Your task to perform on an android device: Clear the shopping cart on costco. Add usb-c to usb-b to the cart on costco Image 0: 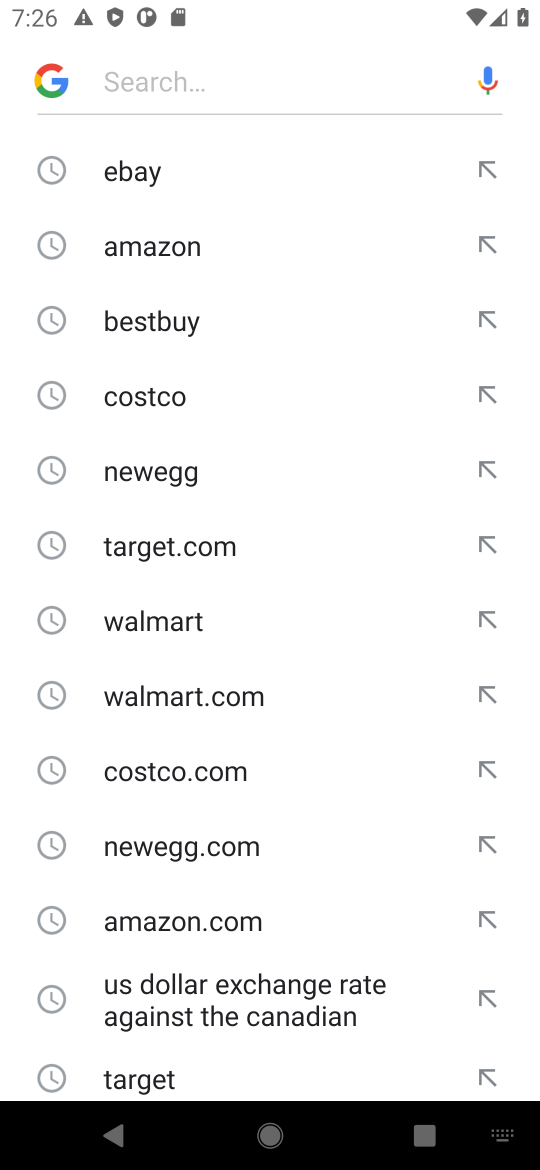
Step 0: click (159, 777)
Your task to perform on an android device: Clear the shopping cart on costco. Add usb-c to usb-b to the cart on costco Image 1: 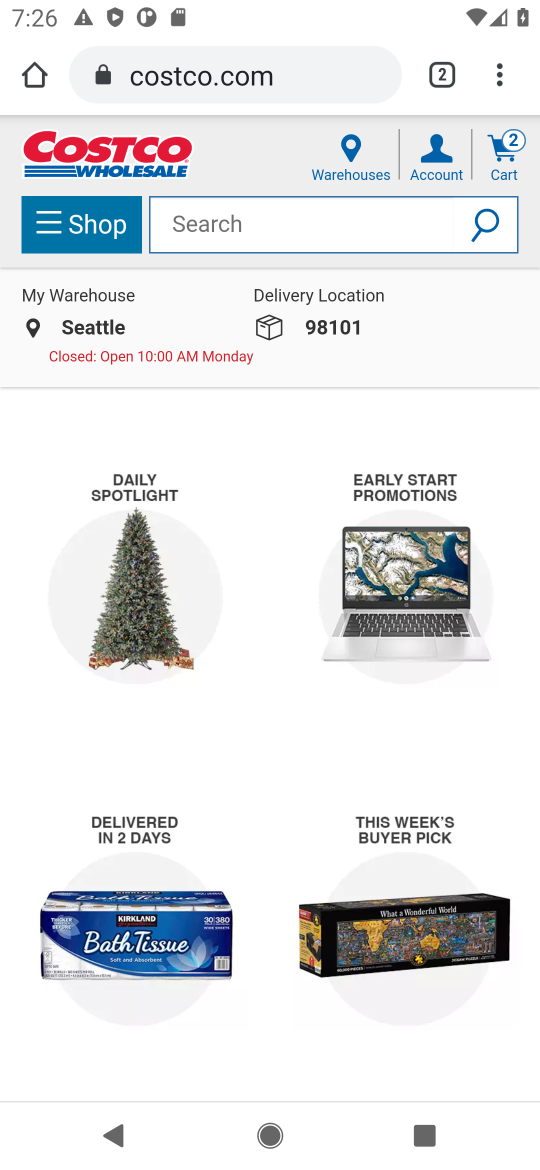
Step 1: click (494, 144)
Your task to perform on an android device: Clear the shopping cart on costco. Add usb-c to usb-b to the cart on costco Image 2: 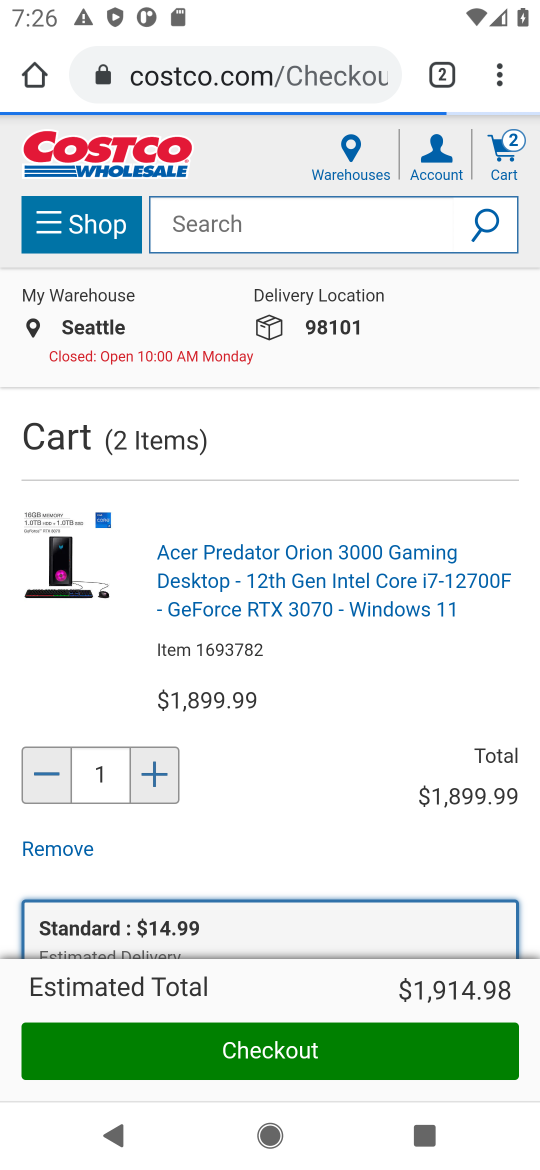
Step 2: drag from (331, 768) to (327, 488)
Your task to perform on an android device: Clear the shopping cart on costco. Add usb-c to usb-b to the cart on costco Image 3: 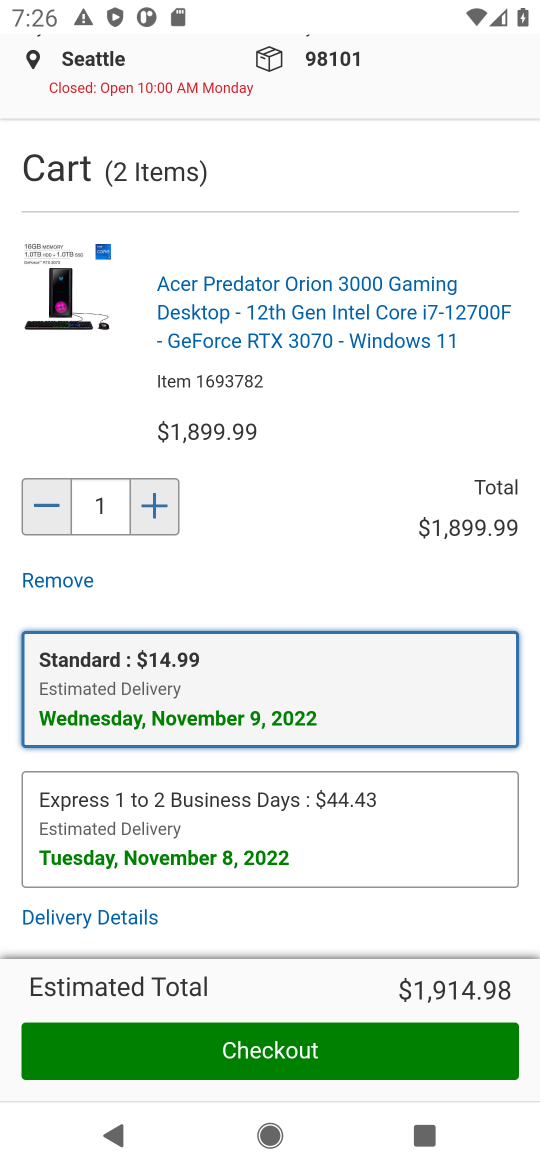
Step 3: click (33, 588)
Your task to perform on an android device: Clear the shopping cart on costco. Add usb-c to usb-b to the cart on costco Image 4: 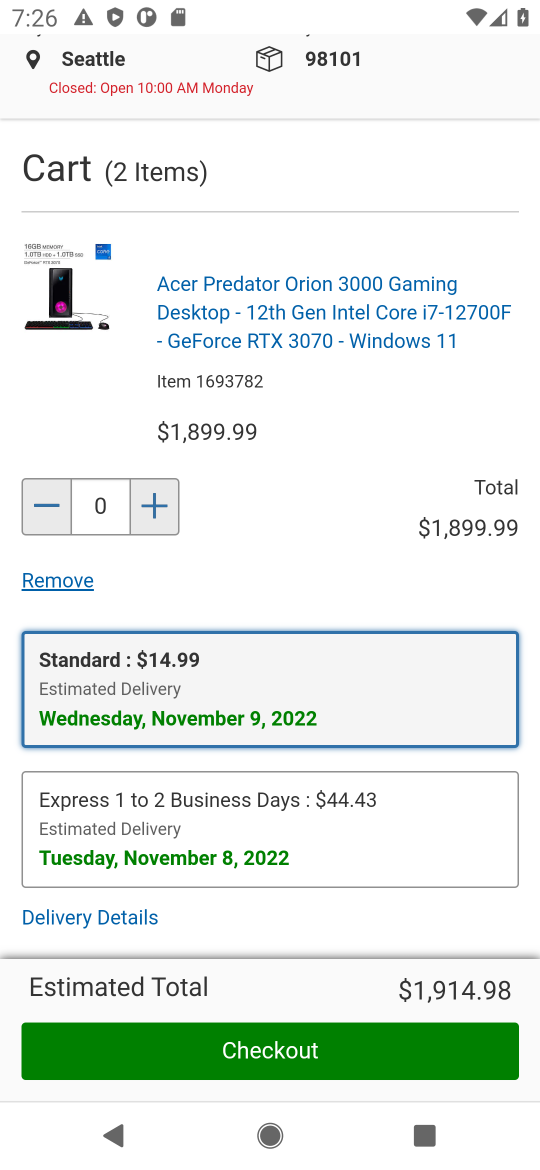
Step 4: click (50, 584)
Your task to perform on an android device: Clear the shopping cart on costco. Add usb-c to usb-b to the cart on costco Image 5: 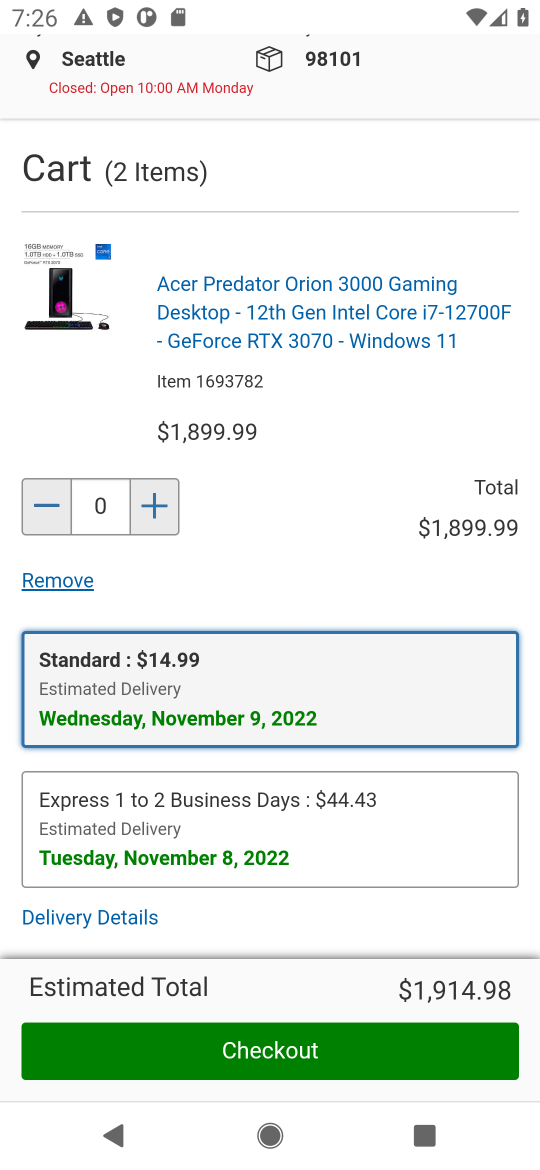
Step 5: drag from (332, 640) to (338, 390)
Your task to perform on an android device: Clear the shopping cart on costco. Add usb-c to usb-b to the cart on costco Image 6: 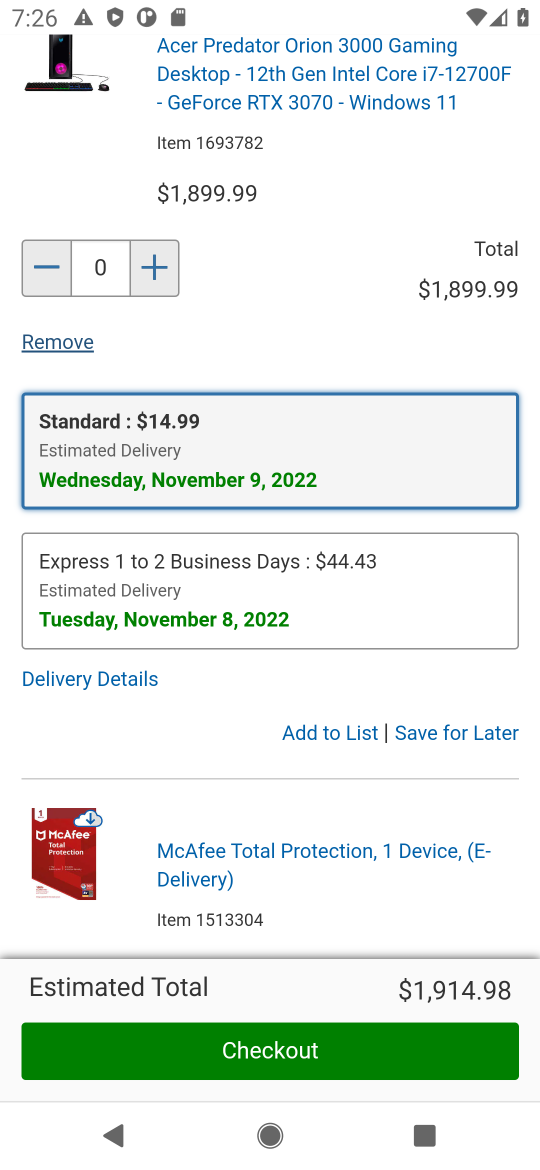
Step 6: drag from (271, 681) to (308, 351)
Your task to perform on an android device: Clear the shopping cart on costco. Add usb-c to usb-b to the cart on costco Image 7: 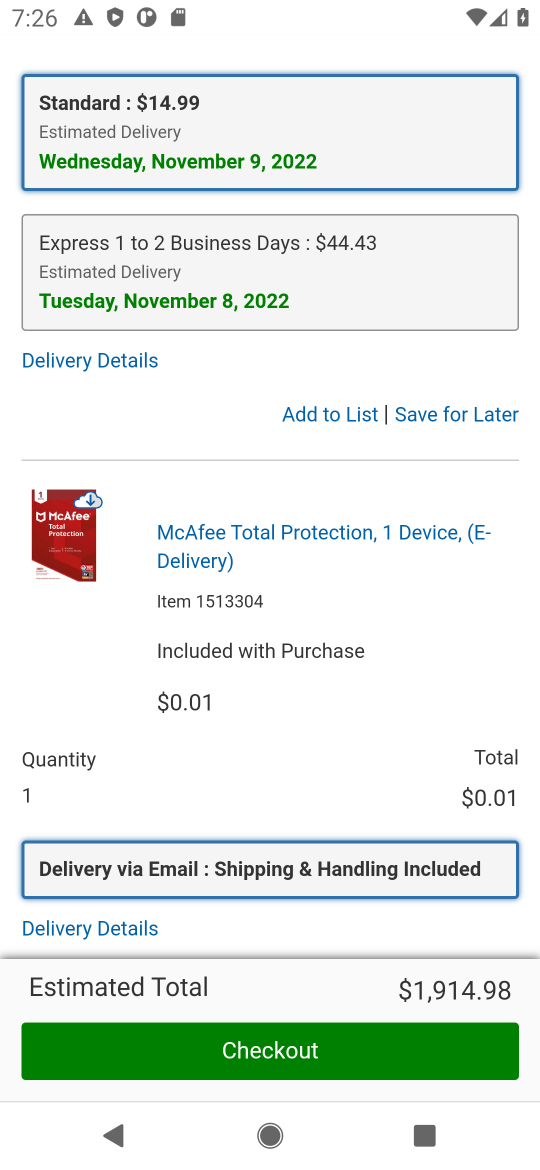
Step 7: drag from (217, 767) to (241, 532)
Your task to perform on an android device: Clear the shopping cart on costco. Add usb-c to usb-b to the cart on costco Image 8: 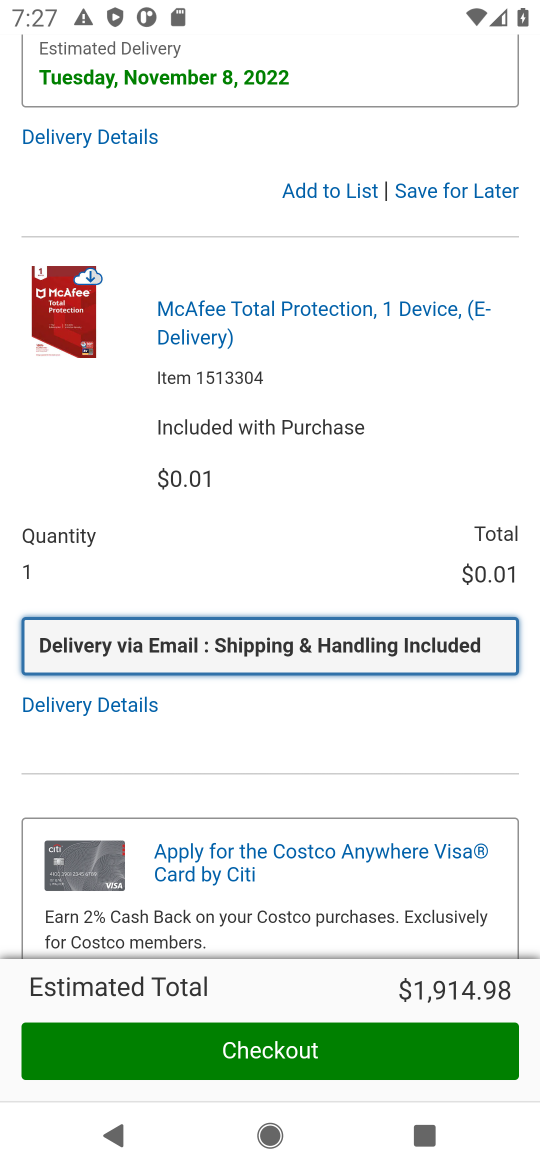
Step 8: drag from (235, 710) to (197, 429)
Your task to perform on an android device: Clear the shopping cart on costco. Add usb-c to usb-b to the cart on costco Image 9: 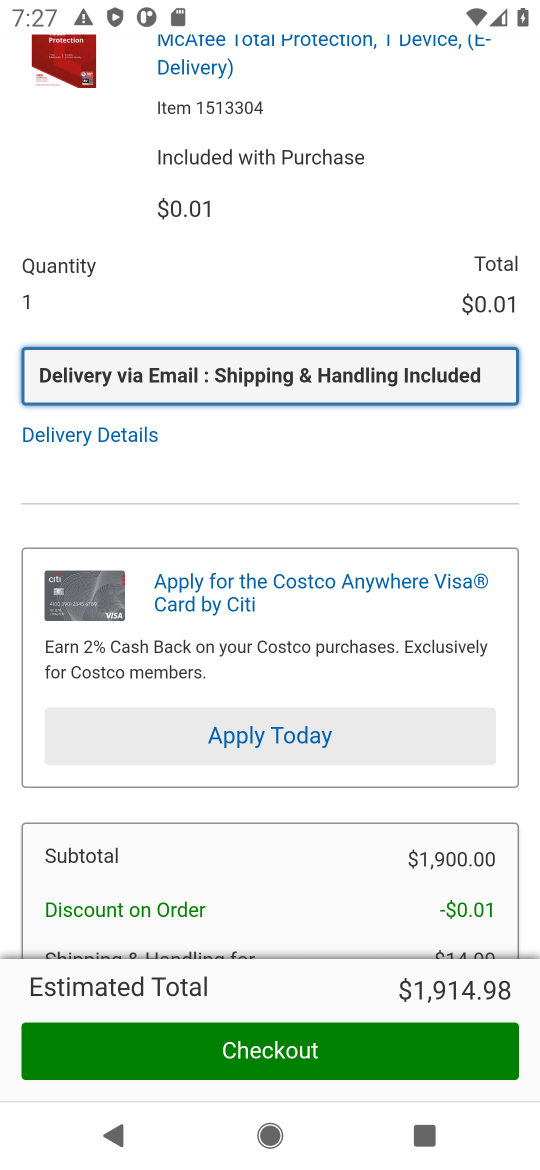
Step 9: drag from (183, 442) to (260, 864)
Your task to perform on an android device: Clear the shopping cart on costco. Add usb-c to usb-b to the cart on costco Image 10: 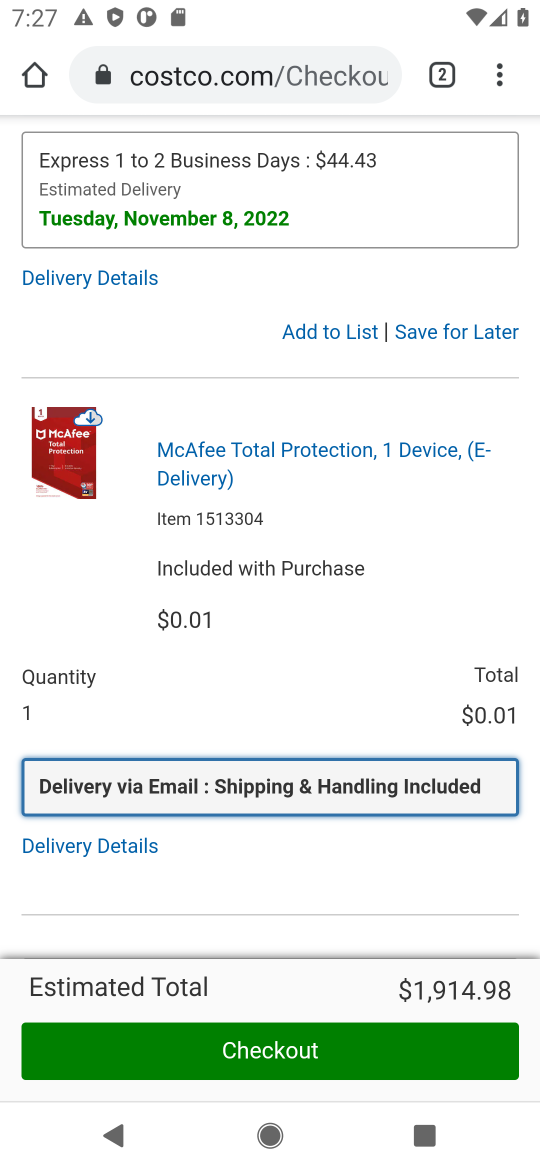
Step 10: drag from (207, 391) to (256, 624)
Your task to perform on an android device: Clear the shopping cart on costco. Add usb-c to usb-b to the cart on costco Image 11: 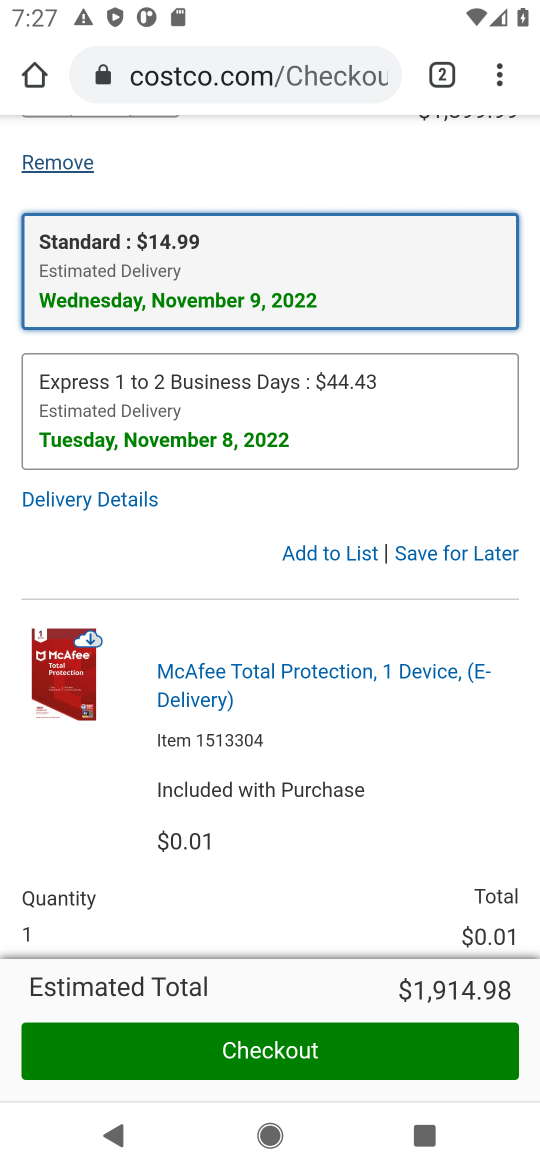
Step 11: click (447, 557)
Your task to perform on an android device: Clear the shopping cart on costco. Add usb-c to usb-b to the cart on costco Image 12: 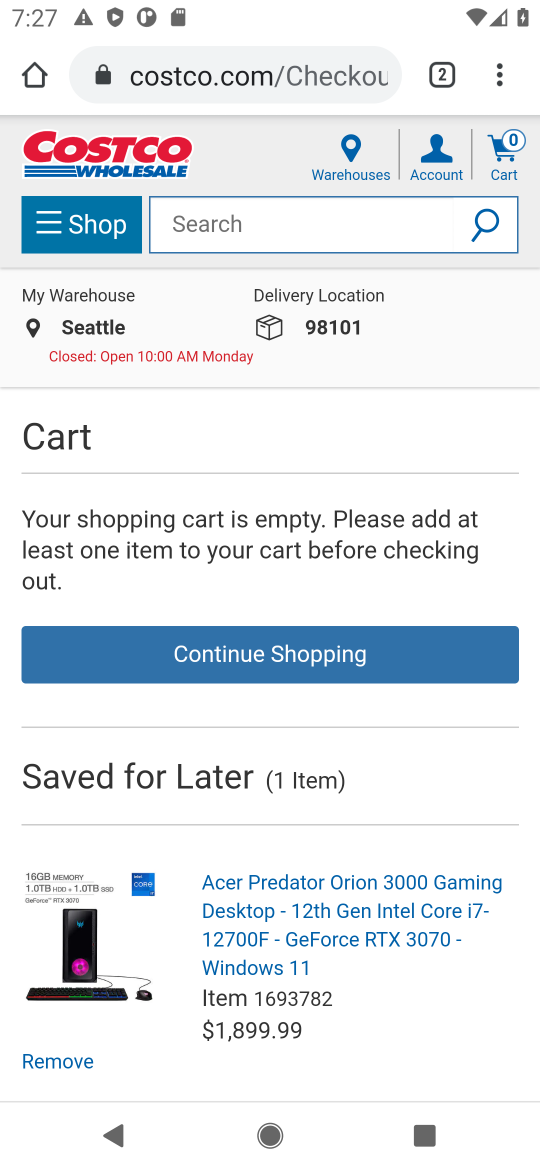
Step 12: click (256, 226)
Your task to perform on an android device: Clear the shopping cart on costco. Add usb-c to usb-b to the cart on costco Image 13: 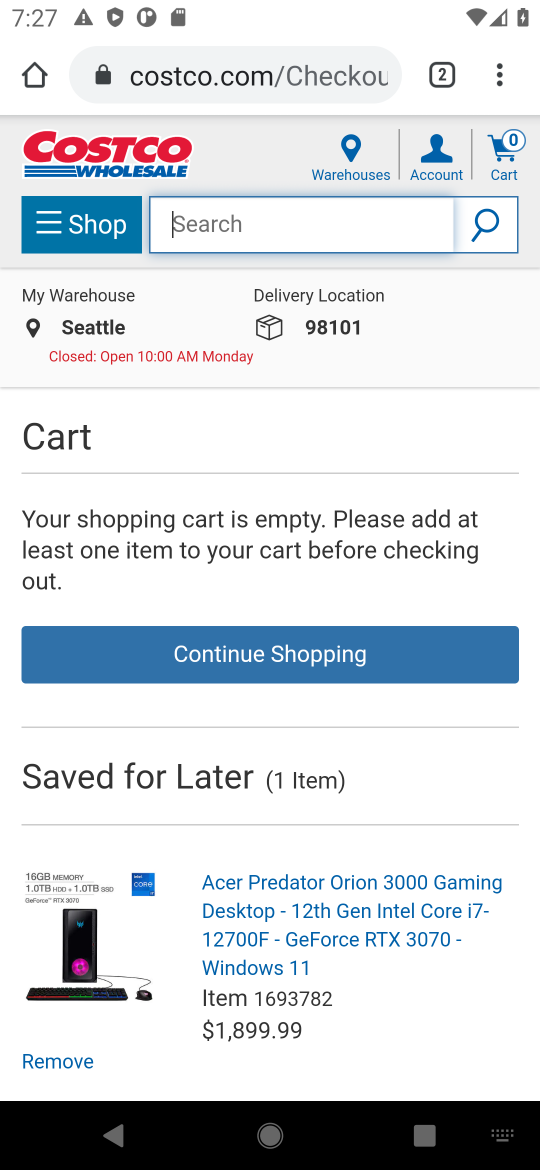
Step 13: type " usb-c to usb-b"
Your task to perform on an android device: Clear the shopping cart on costco. Add usb-c to usb-b to the cart on costco Image 14: 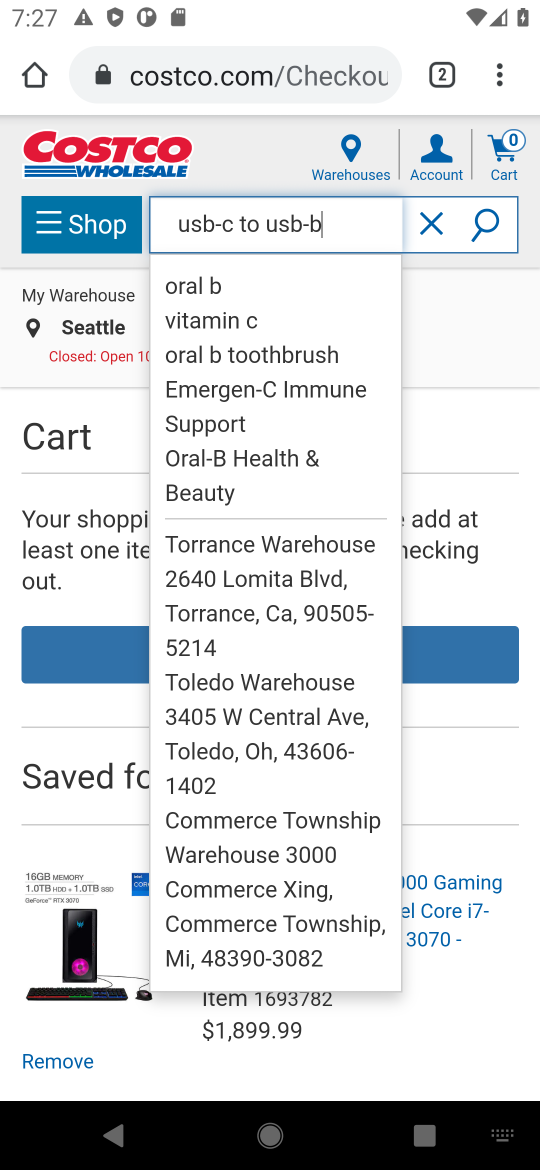
Step 14: click (477, 236)
Your task to perform on an android device: Clear the shopping cart on costco. Add usb-c to usb-b to the cart on costco Image 15: 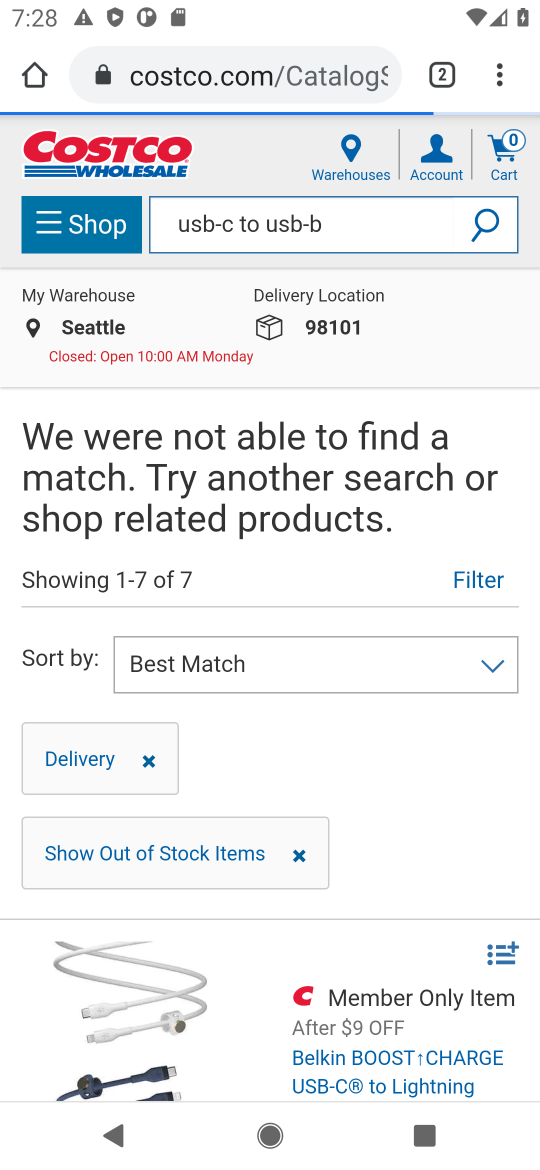
Step 15: task complete